Your task to perform on an android device: When is my next meeting? Image 0: 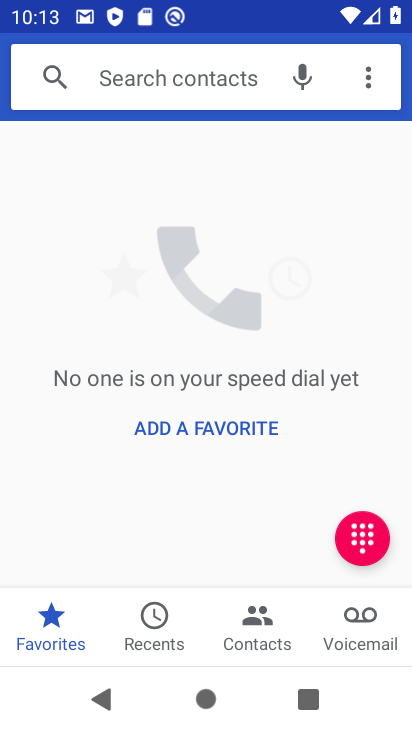
Step 0: press home button
Your task to perform on an android device: When is my next meeting? Image 1: 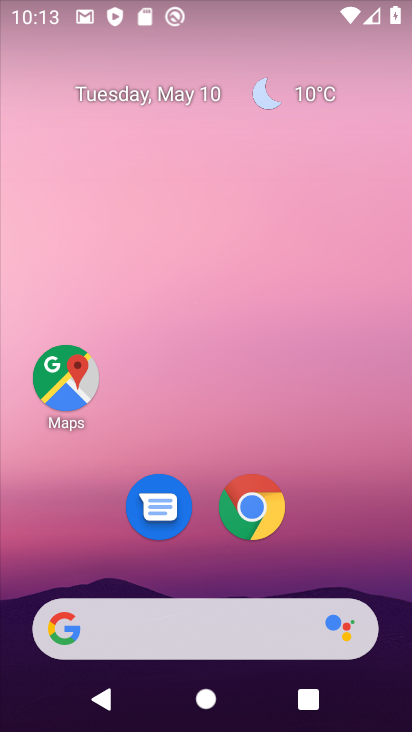
Step 1: drag from (231, 728) to (225, 201)
Your task to perform on an android device: When is my next meeting? Image 2: 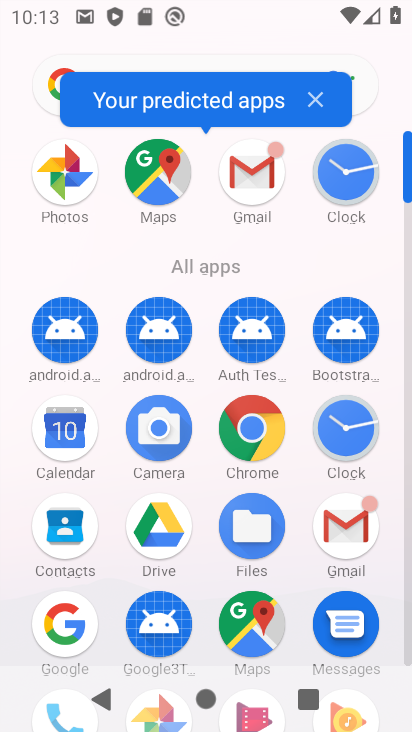
Step 2: click (60, 429)
Your task to perform on an android device: When is my next meeting? Image 3: 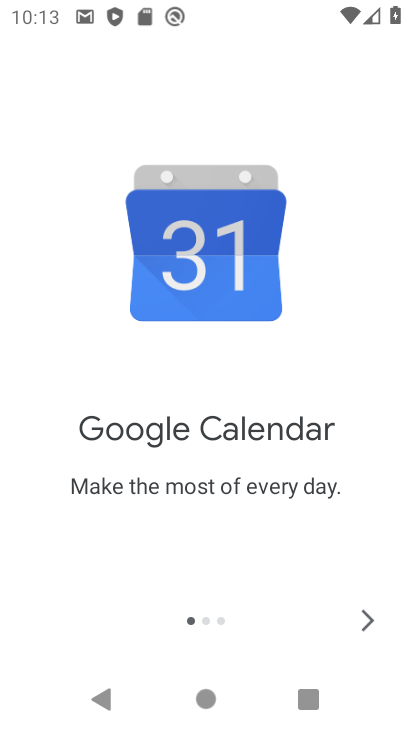
Step 3: click (366, 614)
Your task to perform on an android device: When is my next meeting? Image 4: 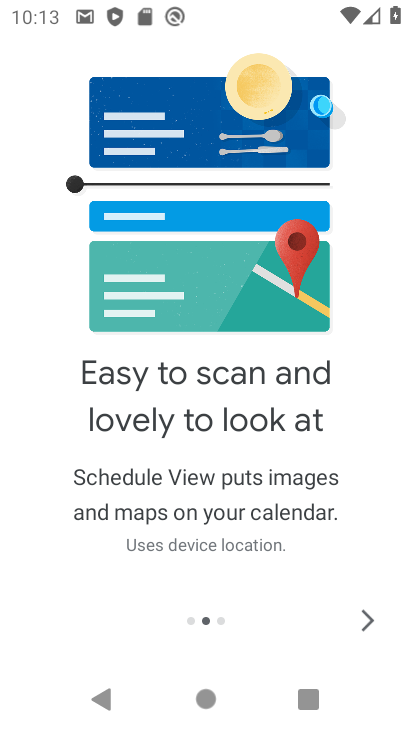
Step 4: click (365, 613)
Your task to perform on an android device: When is my next meeting? Image 5: 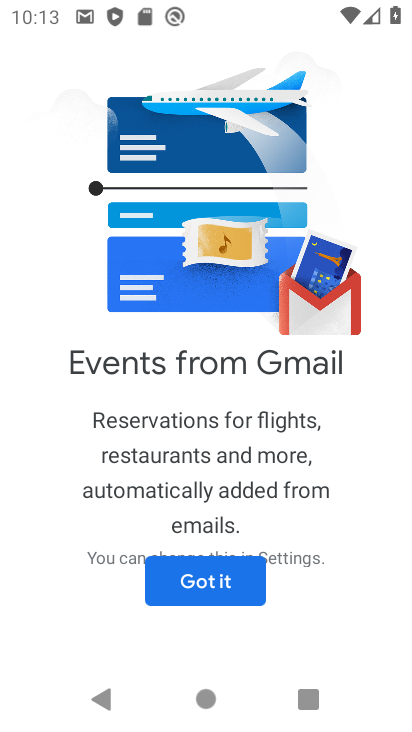
Step 5: click (223, 573)
Your task to perform on an android device: When is my next meeting? Image 6: 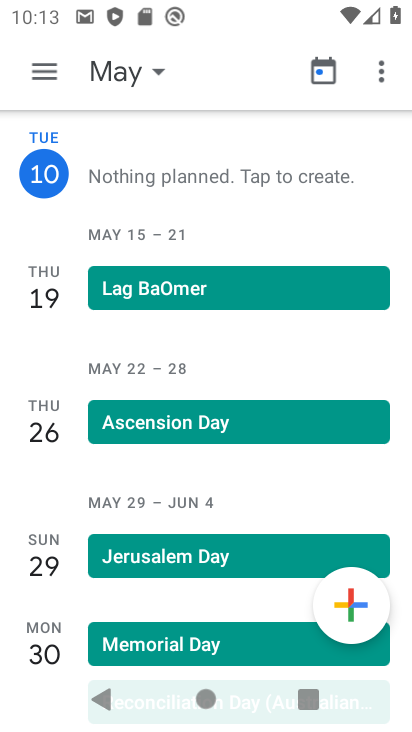
Step 6: click (104, 72)
Your task to perform on an android device: When is my next meeting? Image 7: 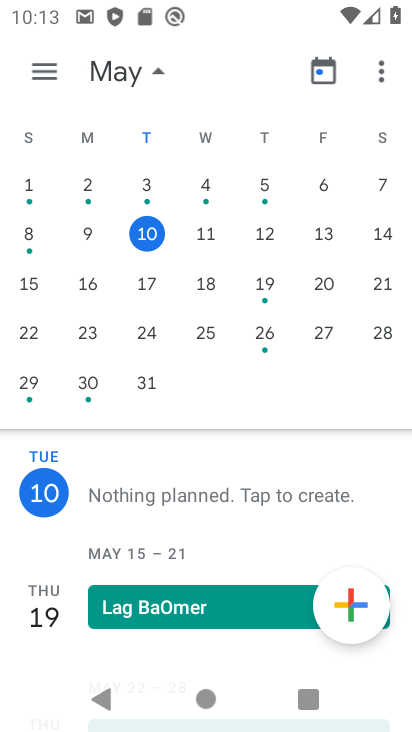
Step 7: click (205, 228)
Your task to perform on an android device: When is my next meeting? Image 8: 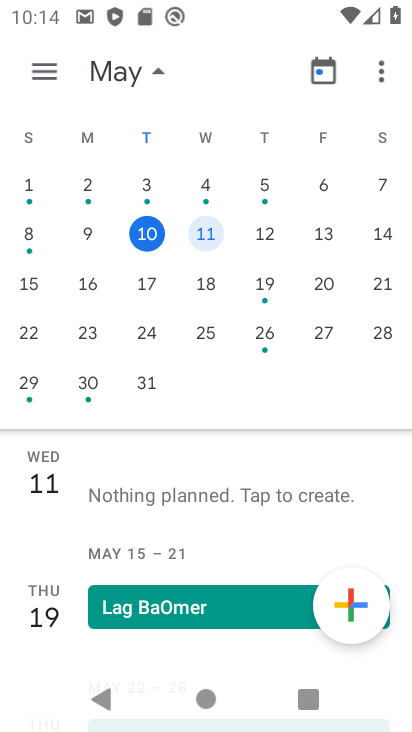
Step 8: task complete